Your task to perform on an android device: Go to Google maps Image 0: 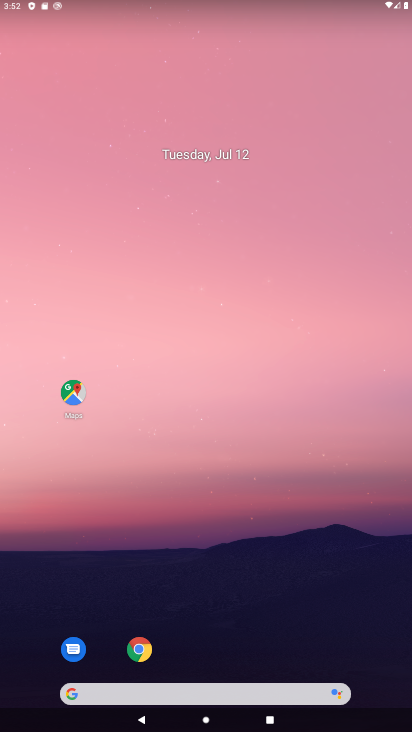
Step 0: click (75, 384)
Your task to perform on an android device: Go to Google maps Image 1: 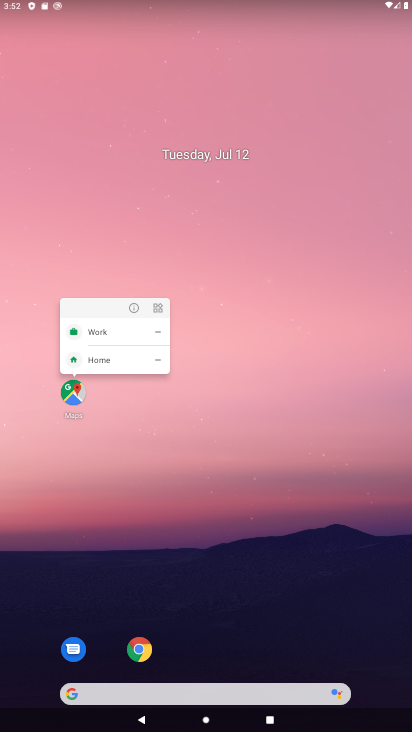
Step 1: click (75, 384)
Your task to perform on an android device: Go to Google maps Image 2: 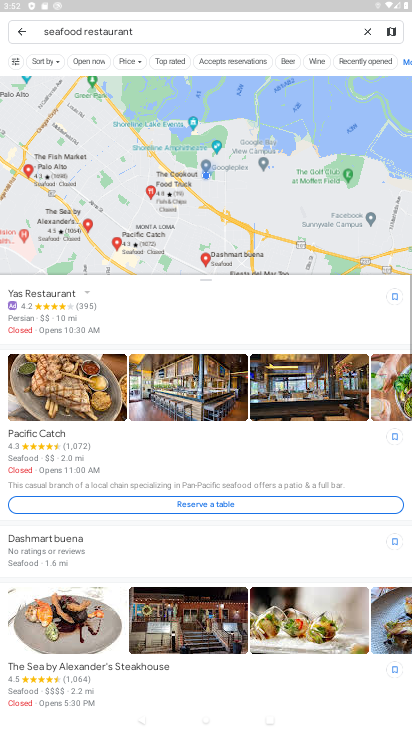
Step 2: click (20, 23)
Your task to perform on an android device: Go to Google maps Image 3: 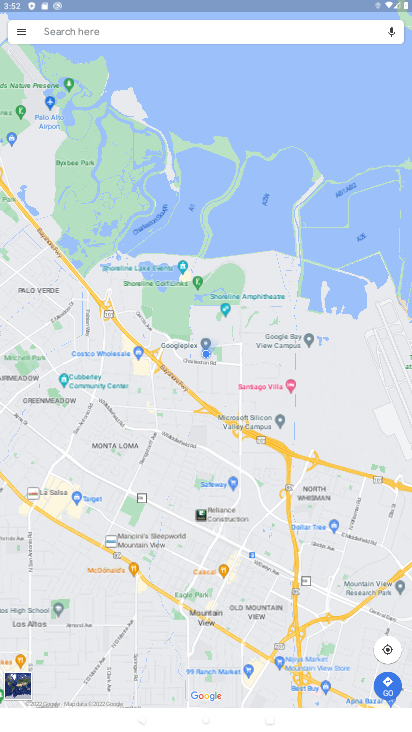
Step 3: task complete